Your task to perform on an android device: open sync settings in chrome Image 0: 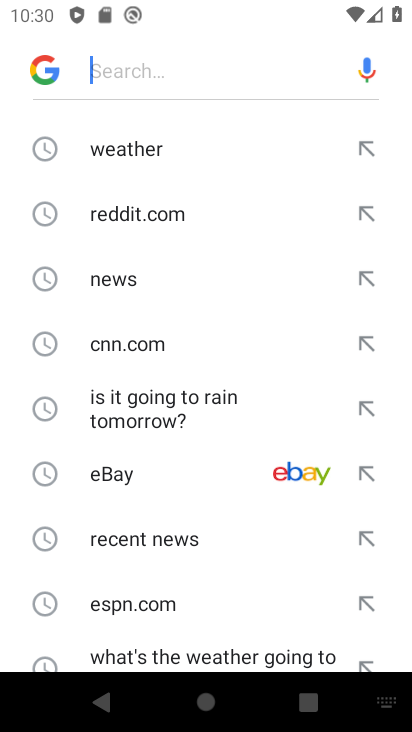
Step 0: press home button
Your task to perform on an android device: open sync settings in chrome Image 1: 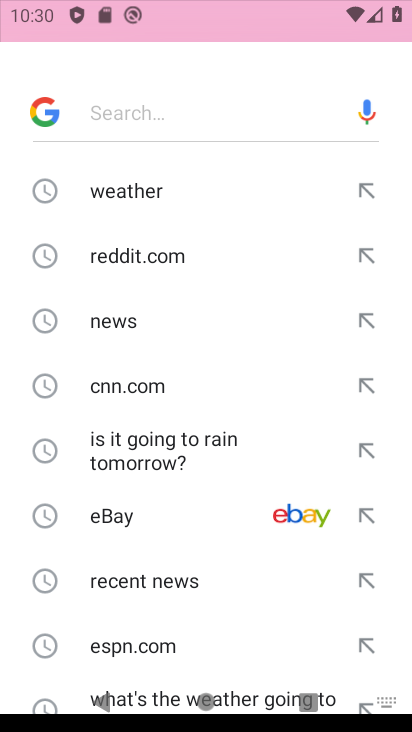
Step 1: press home button
Your task to perform on an android device: open sync settings in chrome Image 2: 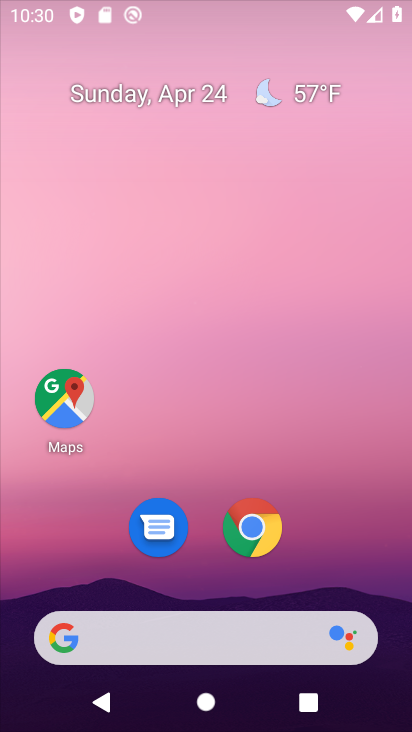
Step 2: press home button
Your task to perform on an android device: open sync settings in chrome Image 3: 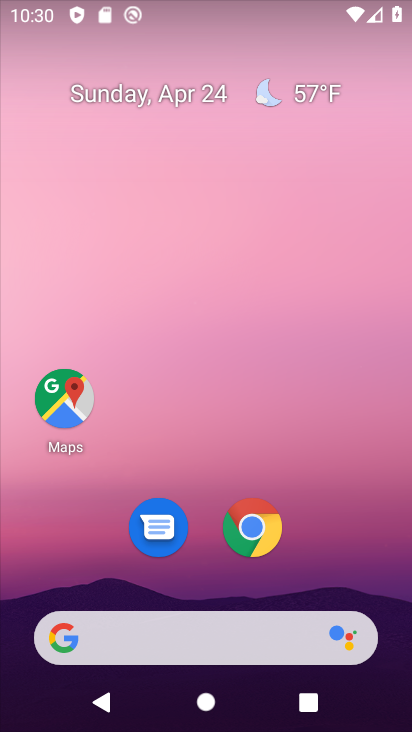
Step 3: click (82, 47)
Your task to perform on an android device: open sync settings in chrome Image 4: 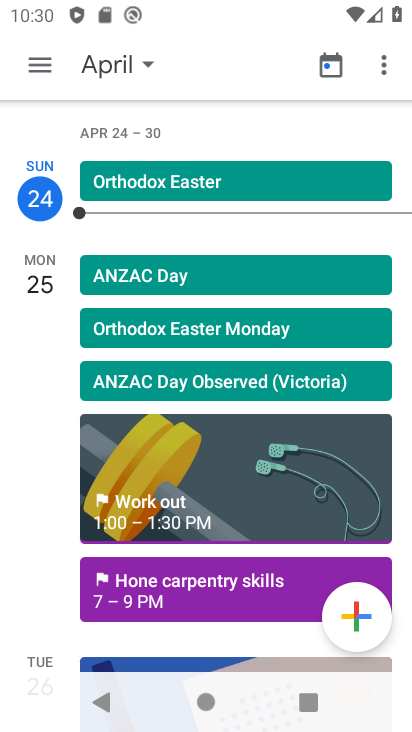
Step 4: press home button
Your task to perform on an android device: open sync settings in chrome Image 5: 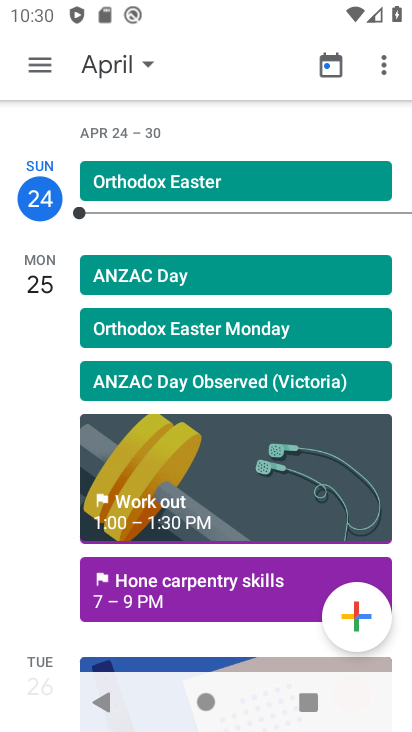
Step 5: press home button
Your task to perform on an android device: open sync settings in chrome Image 6: 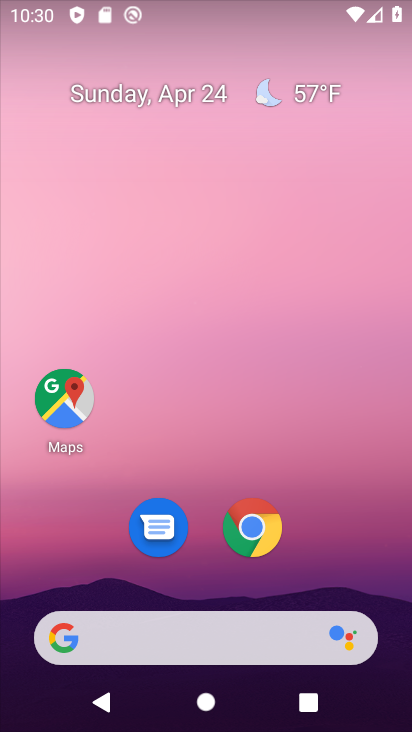
Step 6: drag from (246, 712) to (109, 170)
Your task to perform on an android device: open sync settings in chrome Image 7: 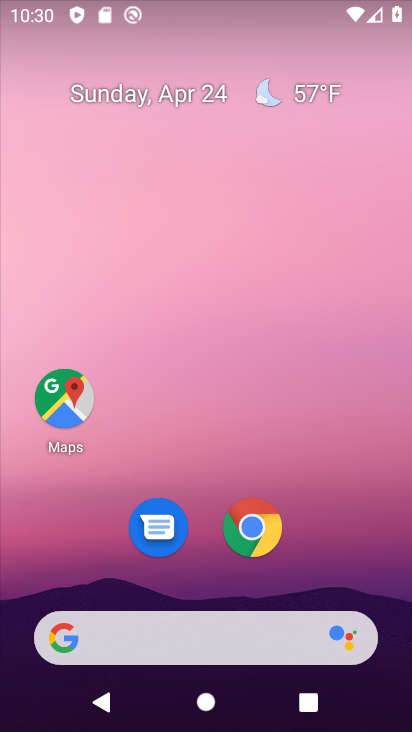
Step 7: drag from (263, 694) to (116, 21)
Your task to perform on an android device: open sync settings in chrome Image 8: 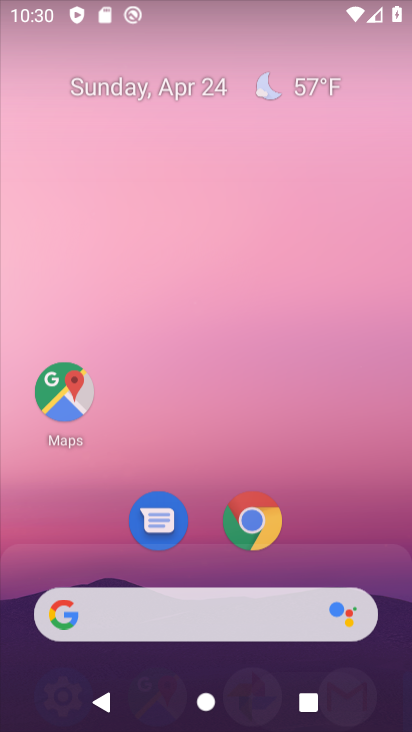
Step 8: drag from (210, 552) to (145, 258)
Your task to perform on an android device: open sync settings in chrome Image 9: 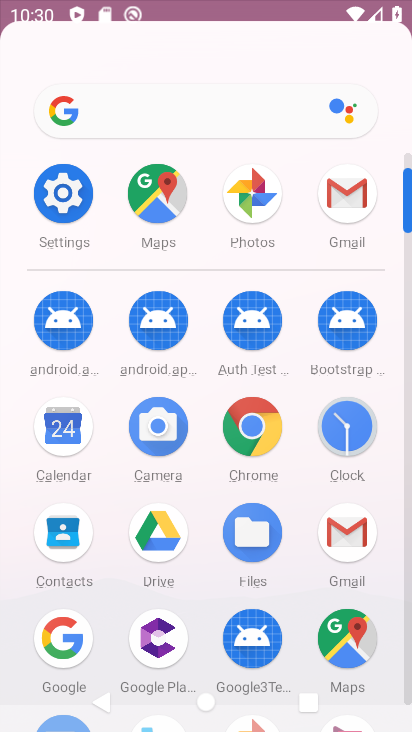
Step 9: drag from (198, 291) to (184, 19)
Your task to perform on an android device: open sync settings in chrome Image 10: 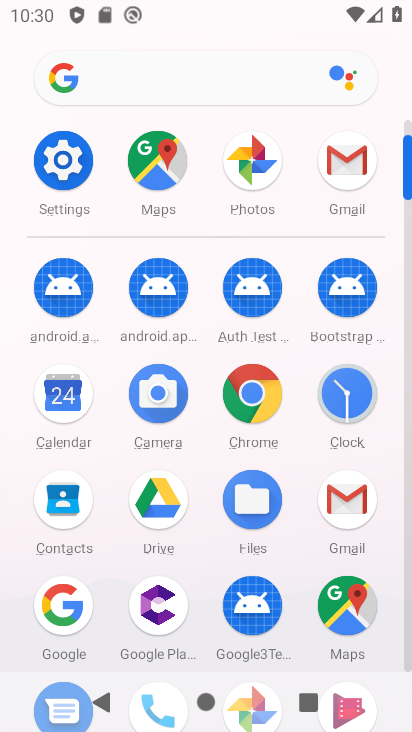
Step 10: click (245, 395)
Your task to perform on an android device: open sync settings in chrome Image 11: 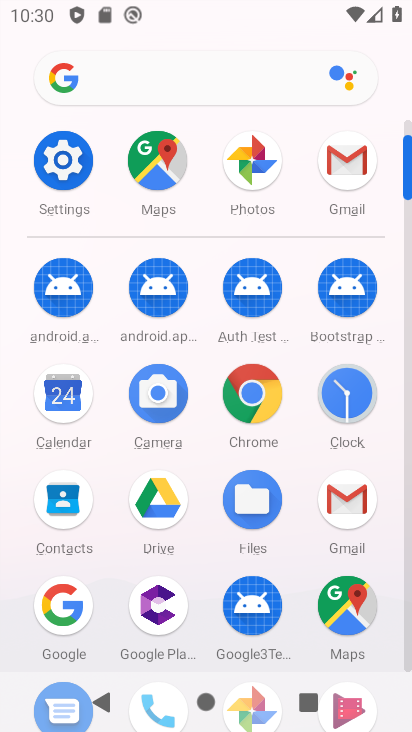
Step 11: click (247, 395)
Your task to perform on an android device: open sync settings in chrome Image 12: 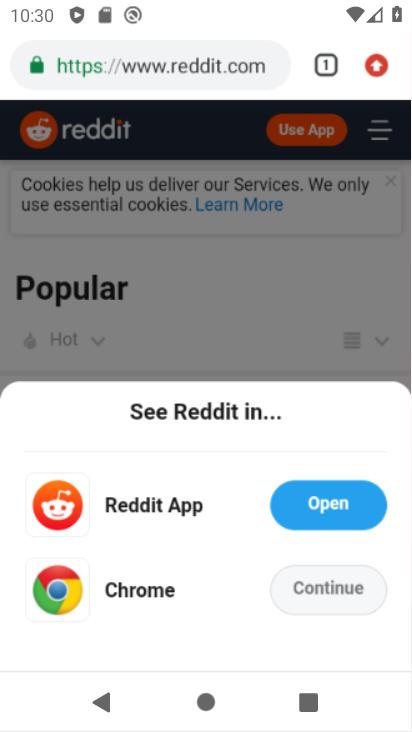
Step 12: click (249, 395)
Your task to perform on an android device: open sync settings in chrome Image 13: 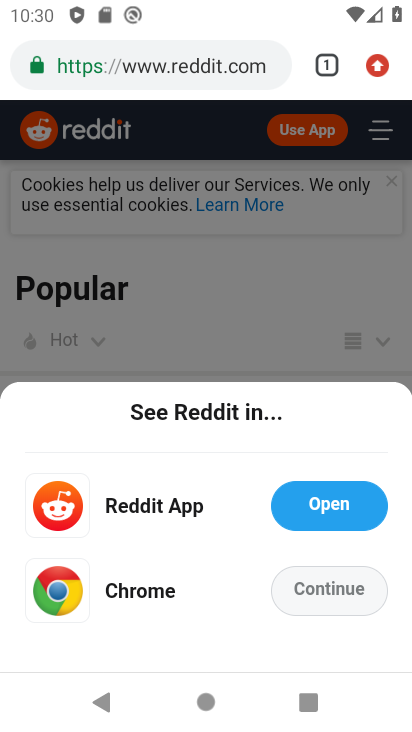
Step 13: drag from (366, 59) to (139, 578)
Your task to perform on an android device: open sync settings in chrome Image 14: 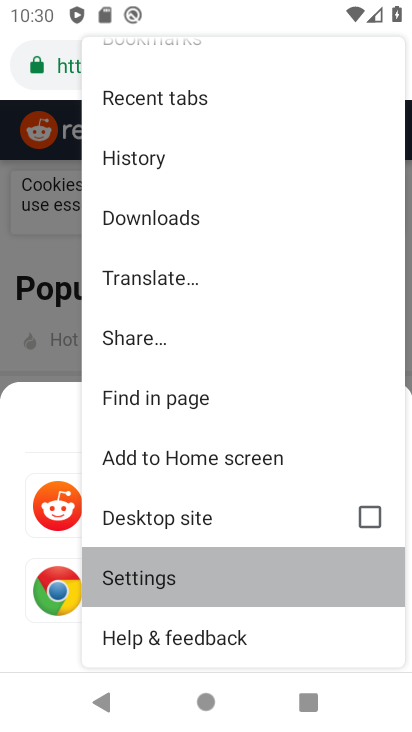
Step 14: click (139, 575)
Your task to perform on an android device: open sync settings in chrome Image 15: 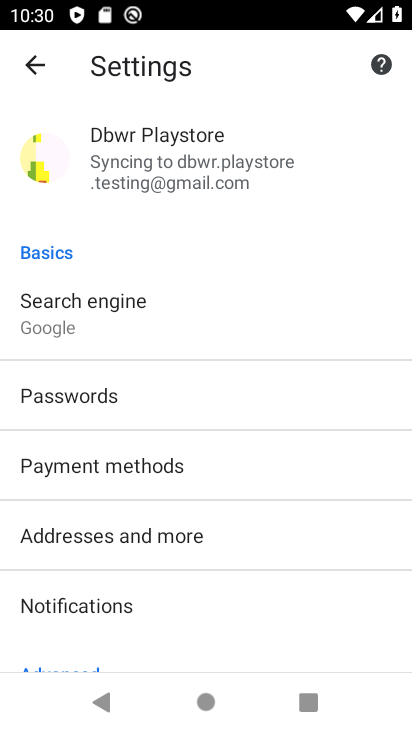
Step 15: drag from (180, 411) to (148, 45)
Your task to perform on an android device: open sync settings in chrome Image 16: 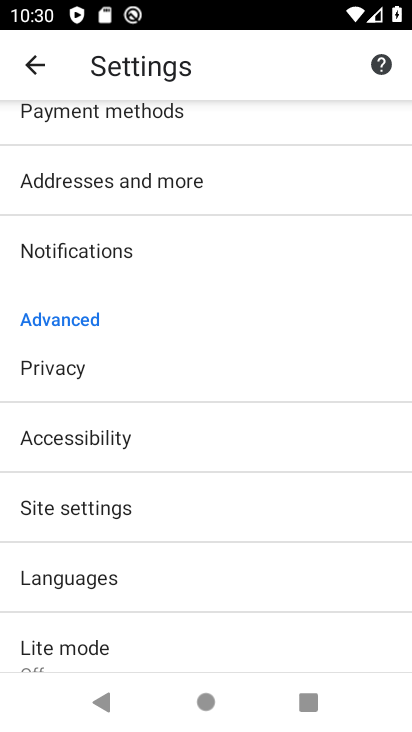
Step 16: click (87, 528)
Your task to perform on an android device: open sync settings in chrome Image 17: 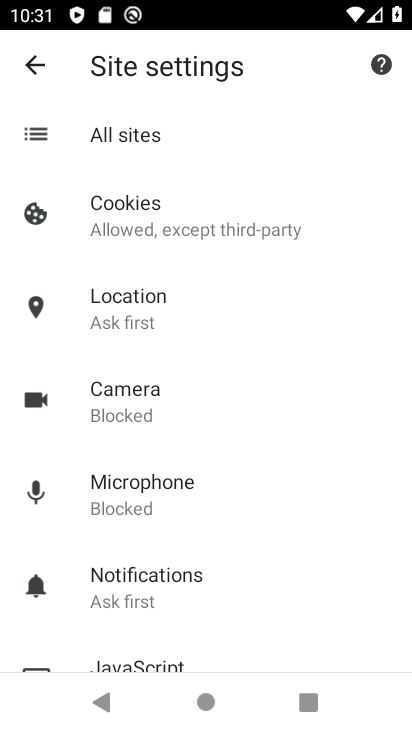
Step 17: drag from (131, 569) to (36, 83)
Your task to perform on an android device: open sync settings in chrome Image 18: 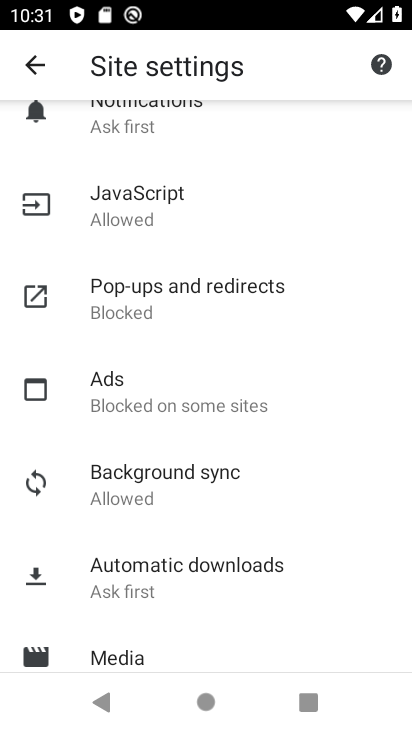
Step 18: click (129, 476)
Your task to perform on an android device: open sync settings in chrome Image 19: 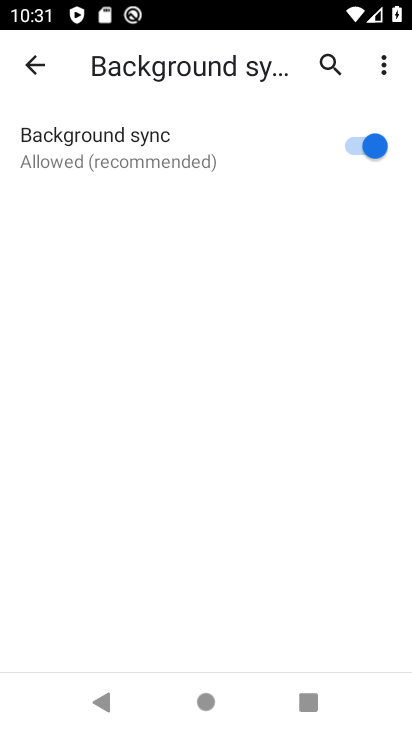
Step 19: task complete